Your task to perform on an android device: open chrome and create a bookmark for the current page Image 0: 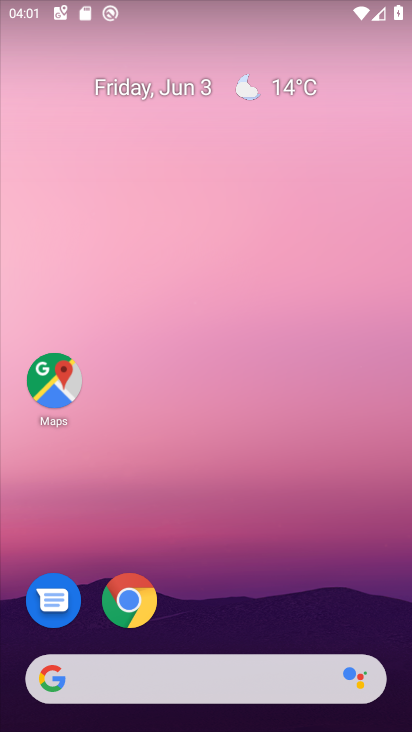
Step 0: click (129, 603)
Your task to perform on an android device: open chrome and create a bookmark for the current page Image 1: 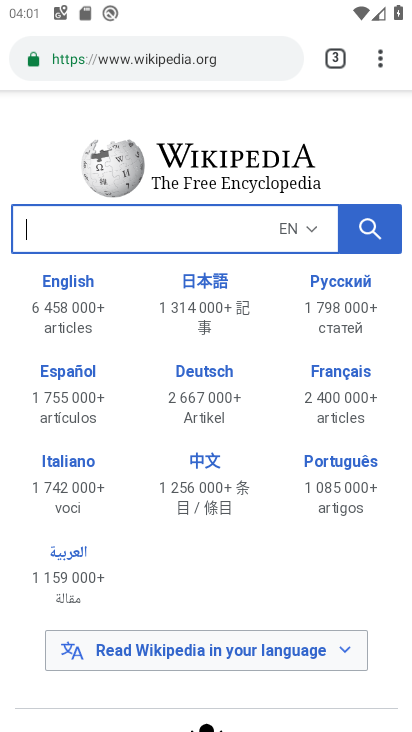
Step 1: task complete